Your task to perform on an android device: turn on location history Image 0: 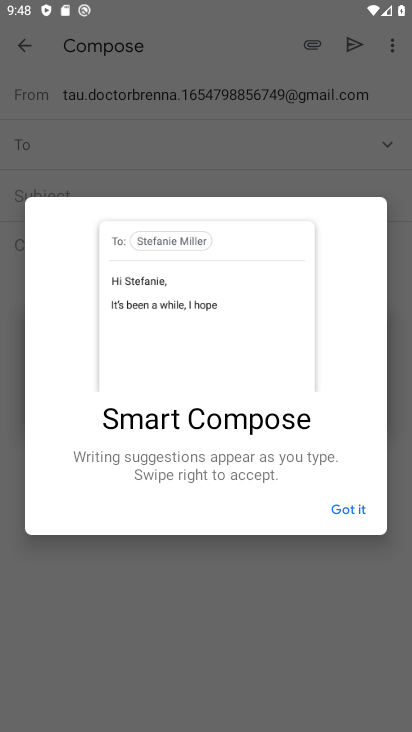
Step 0: press home button
Your task to perform on an android device: turn on location history Image 1: 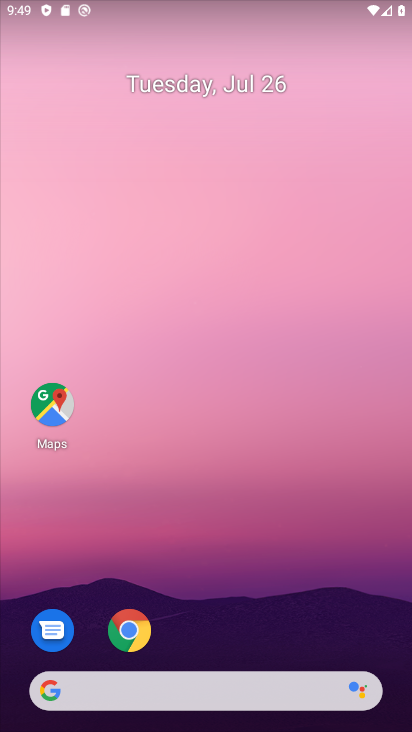
Step 1: click (51, 400)
Your task to perform on an android device: turn on location history Image 2: 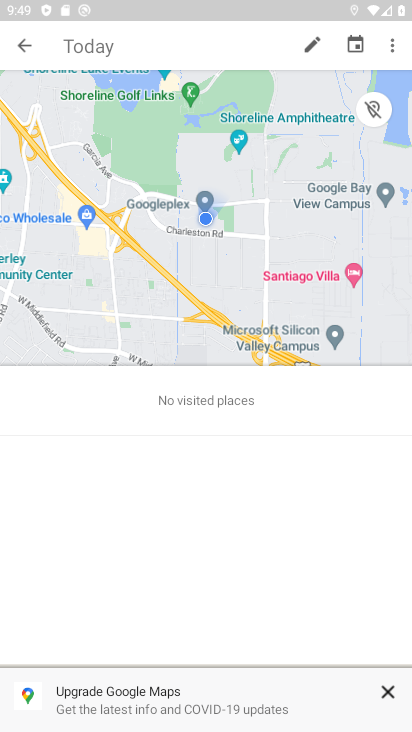
Step 2: press back button
Your task to perform on an android device: turn on location history Image 3: 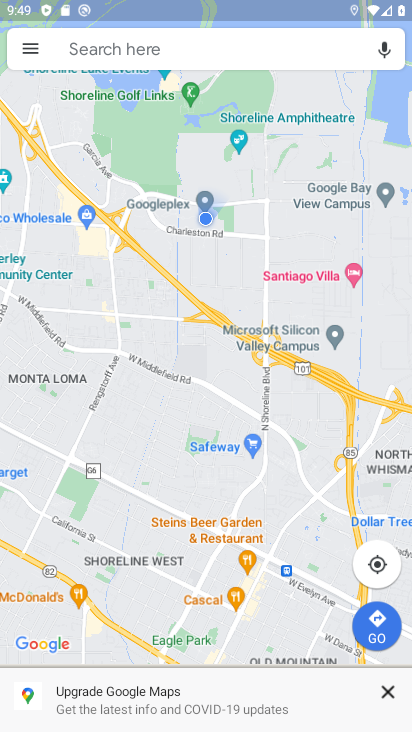
Step 3: click (27, 45)
Your task to perform on an android device: turn on location history Image 4: 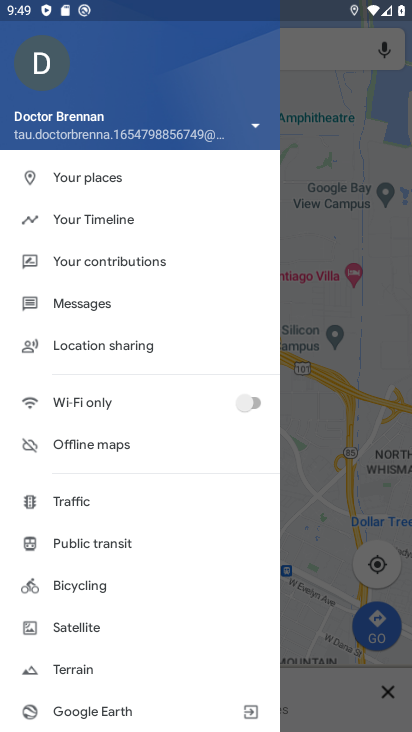
Step 4: drag from (165, 610) to (165, 313)
Your task to perform on an android device: turn on location history Image 5: 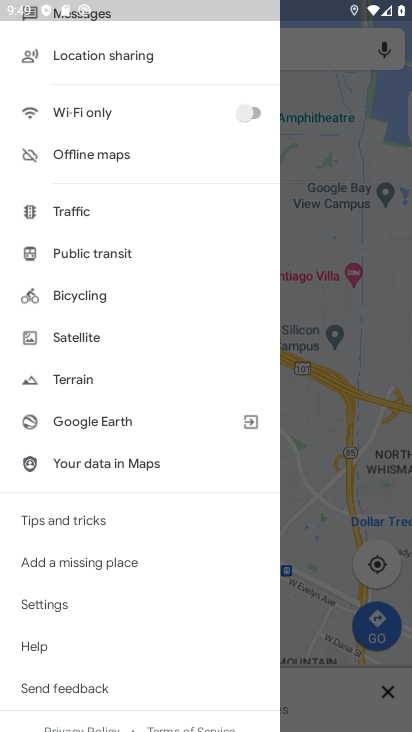
Step 5: click (37, 607)
Your task to perform on an android device: turn on location history Image 6: 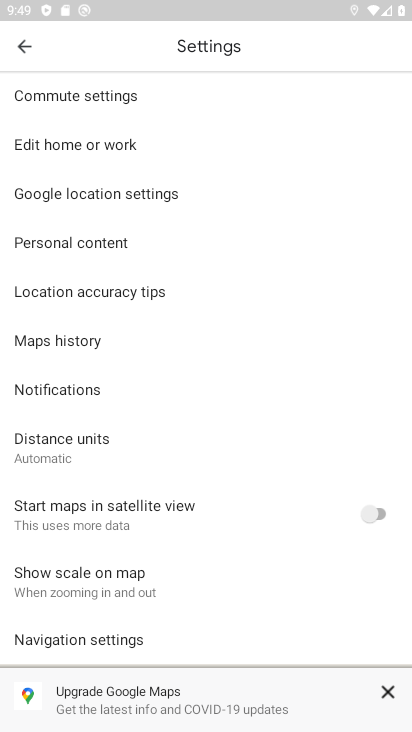
Step 6: click (72, 244)
Your task to perform on an android device: turn on location history Image 7: 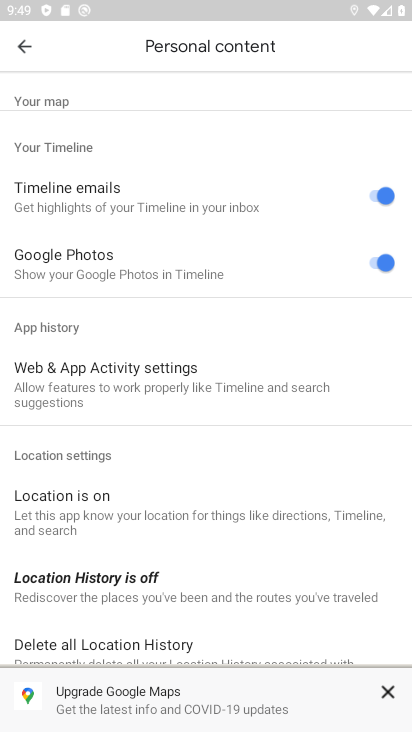
Step 7: drag from (201, 524) to (206, 243)
Your task to perform on an android device: turn on location history Image 8: 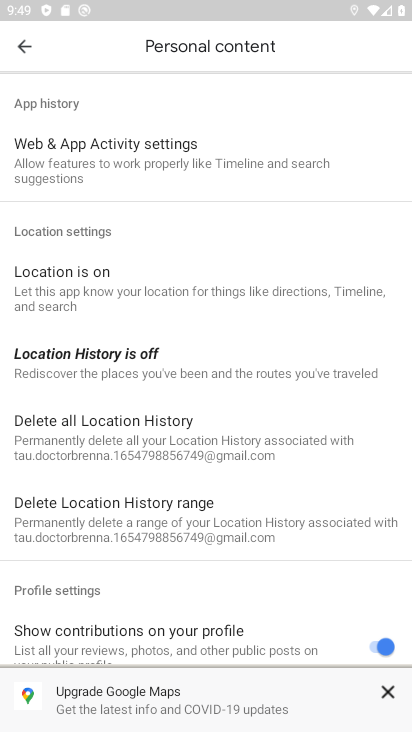
Step 8: click (96, 362)
Your task to perform on an android device: turn on location history Image 9: 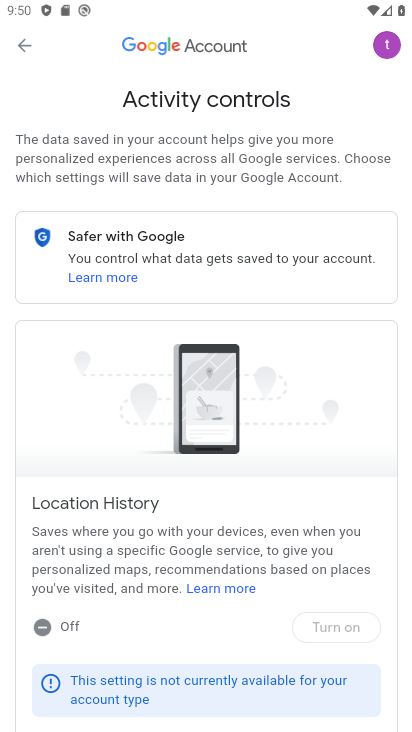
Step 9: drag from (295, 582) to (288, 224)
Your task to perform on an android device: turn on location history Image 10: 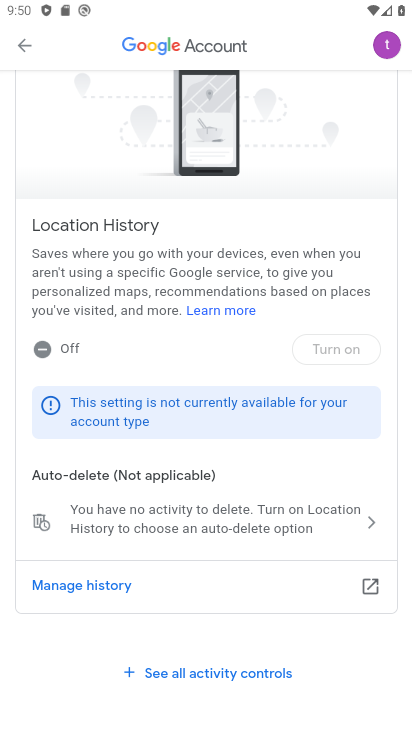
Step 10: click (328, 339)
Your task to perform on an android device: turn on location history Image 11: 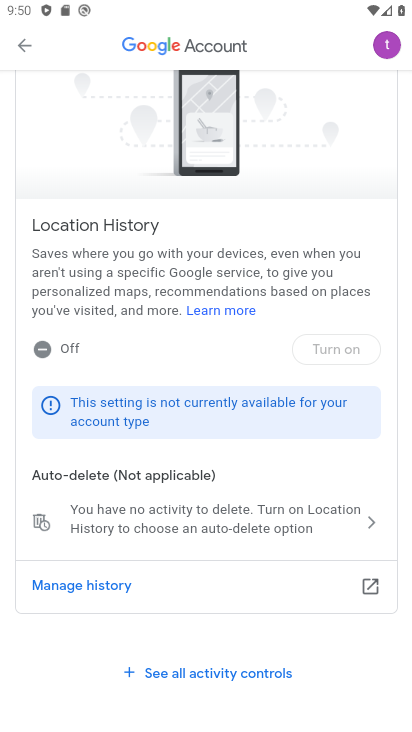
Step 11: click (333, 344)
Your task to perform on an android device: turn on location history Image 12: 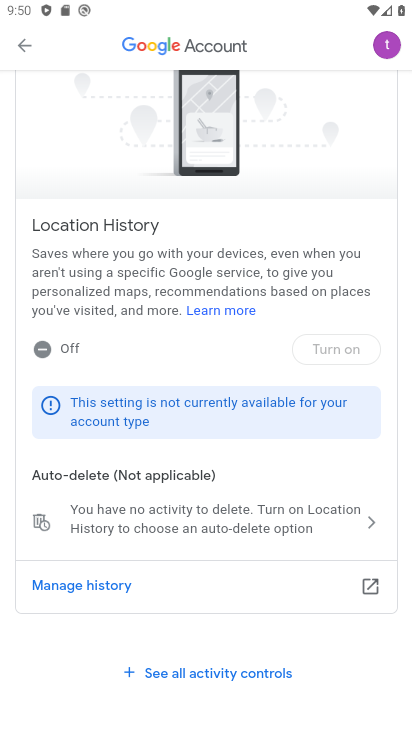
Step 12: task complete